Your task to perform on an android device: open the mobile data screen to see how much data has been used Image 0: 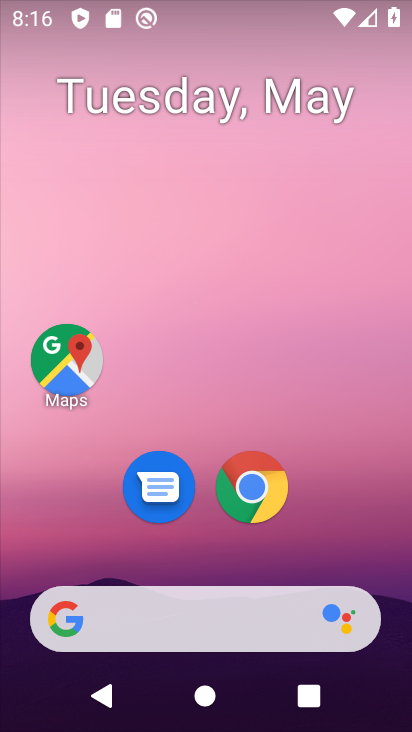
Step 0: drag from (224, 729) to (193, 127)
Your task to perform on an android device: open the mobile data screen to see how much data has been used Image 1: 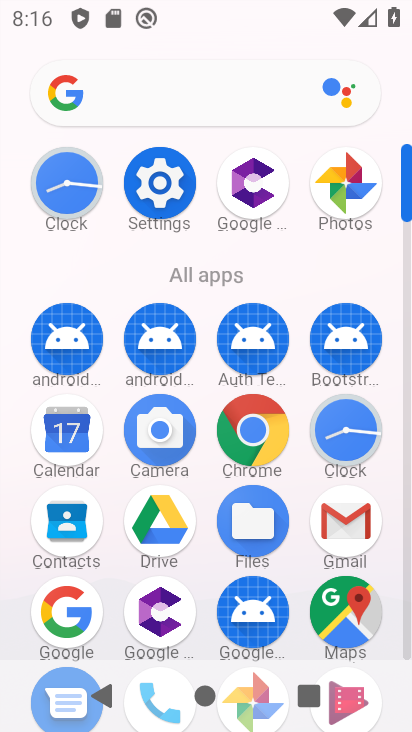
Step 1: click (159, 180)
Your task to perform on an android device: open the mobile data screen to see how much data has been used Image 2: 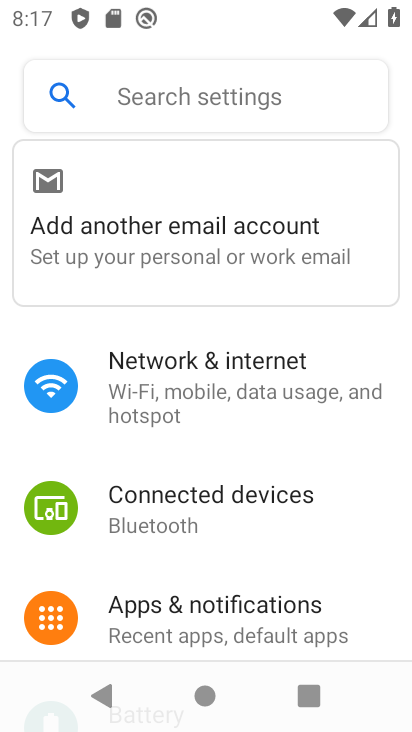
Step 2: click (201, 374)
Your task to perform on an android device: open the mobile data screen to see how much data has been used Image 3: 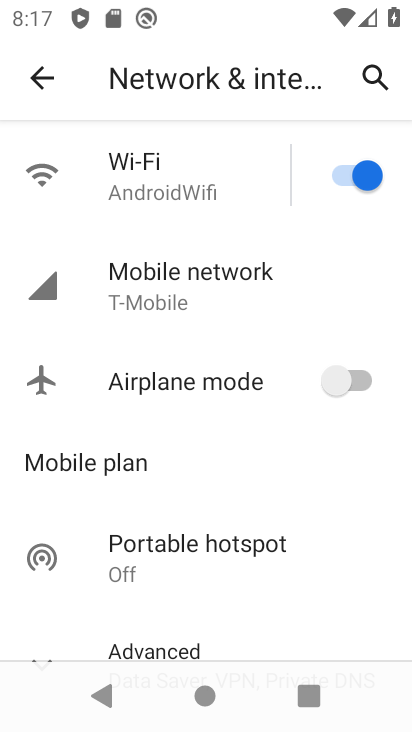
Step 3: click (161, 272)
Your task to perform on an android device: open the mobile data screen to see how much data has been used Image 4: 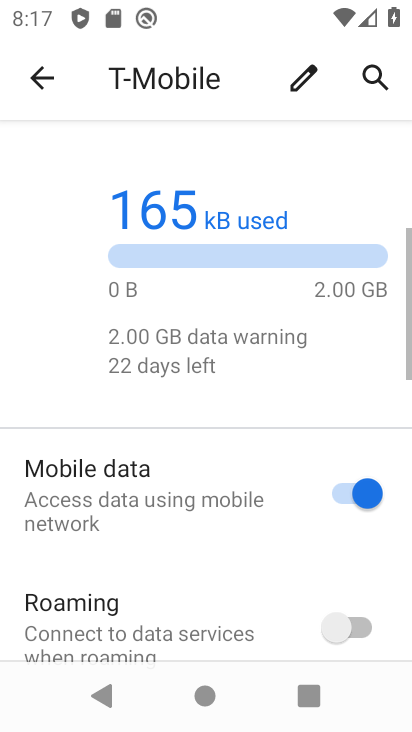
Step 4: drag from (150, 613) to (154, 297)
Your task to perform on an android device: open the mobile data screen to see how much data has been used Image 5: 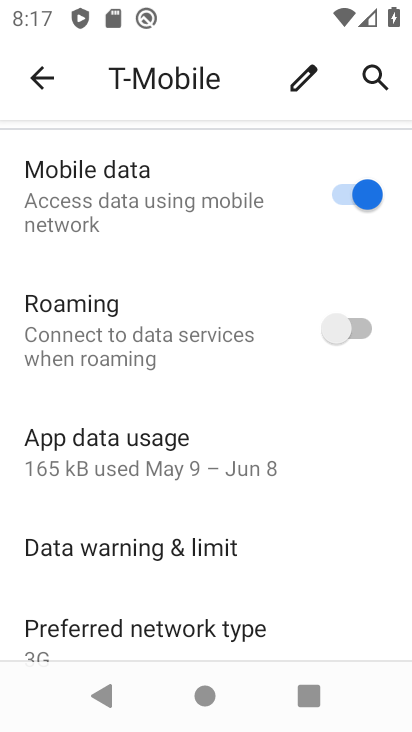
Step 5: click (137, 443)
Your task to perform on an android device: open the mobile data screen to see how much data has been used Image 6: 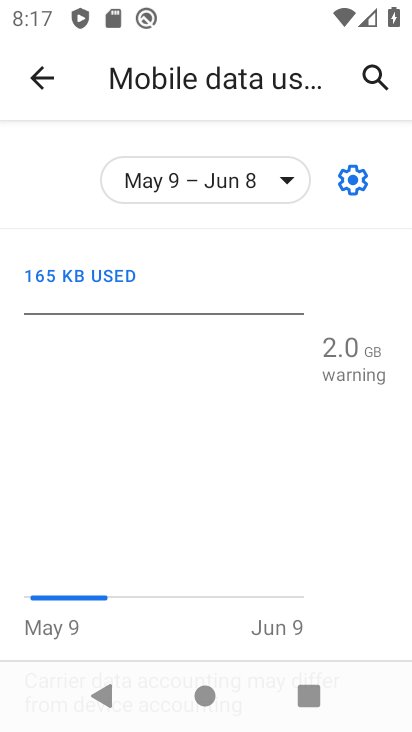
Step 6: task complete